Your task to perform on an android device: What's the weather today? Image 0: 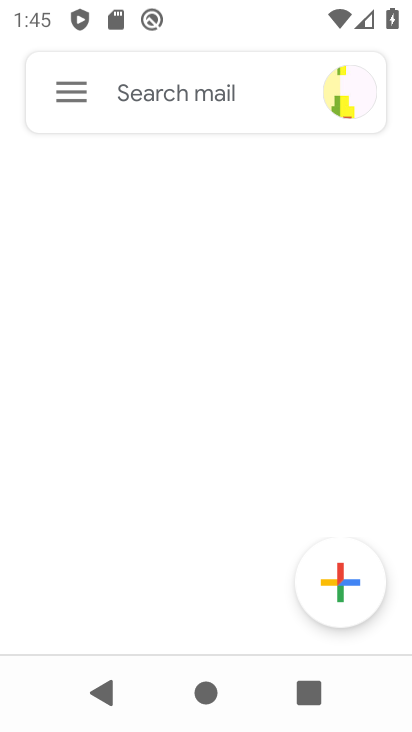
Step 0: press back button
Your task to perform on an android device: What's the weather today? Image 1: 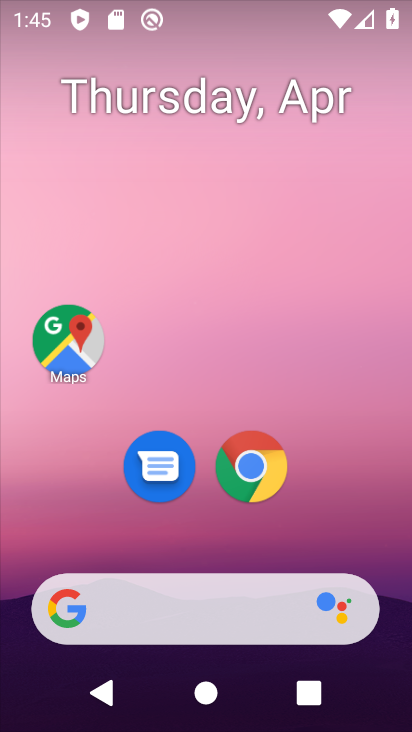
Step 1: drag from (334, 514) to (324, 68)
Your task to perform on an android device: What's the weather today? Image 2: 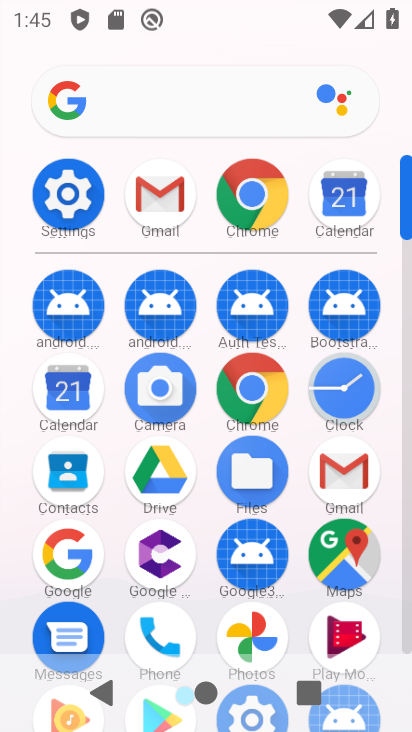
Step 2: drag from (10, 502) to (12, 264)
Your task to perform on an android device: What's the weather today? Image 3: 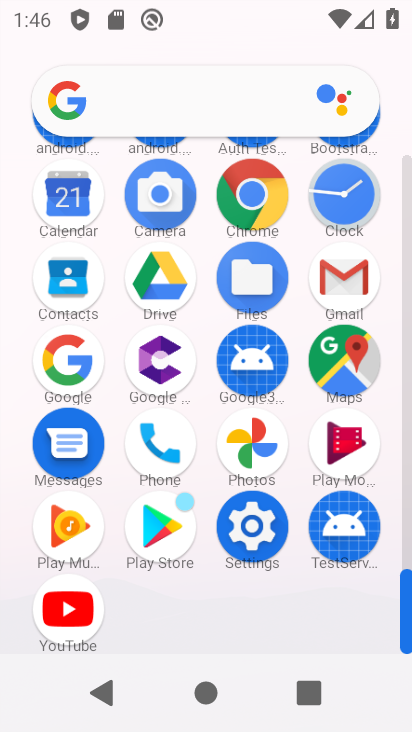
Step 3: drag from (2, 489) to (15, 294)
Your task to perform on an android device: What's the weather today? Image 4: 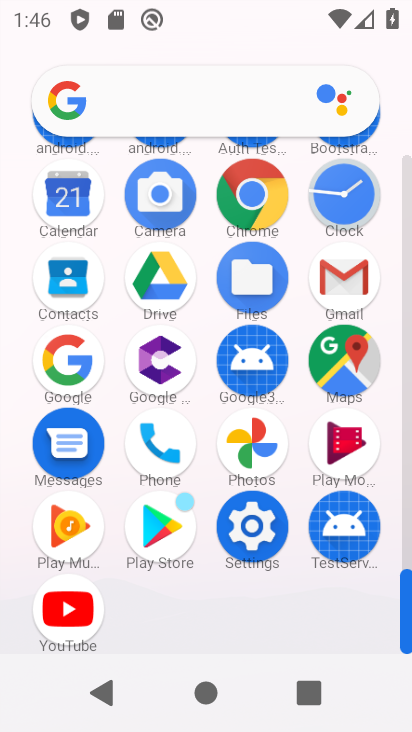
Step 4: drag from (13, 234) to (10, 416)
Your task to perform on an android device: What's the weather today? Image 5: 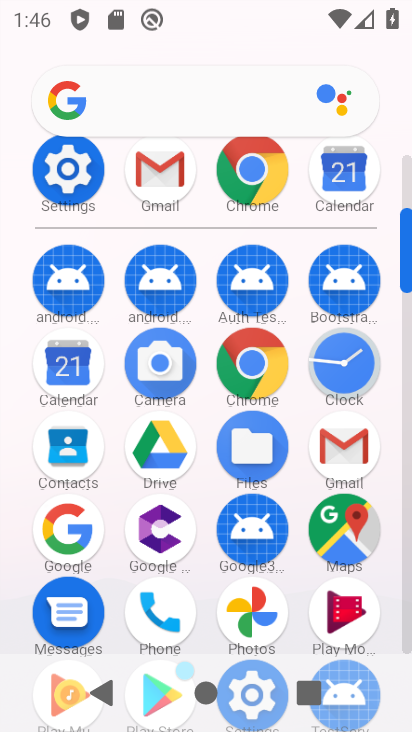
Step 5: click (173, 100)
Your task to perform on an android device: What's the weather today? Image 6: 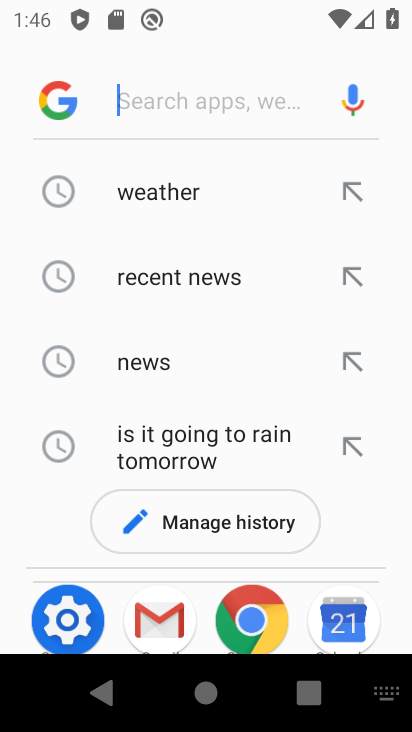
Step 6: click (171, 192)
Your task to perform on an android device: What's the weather today? Image 7: 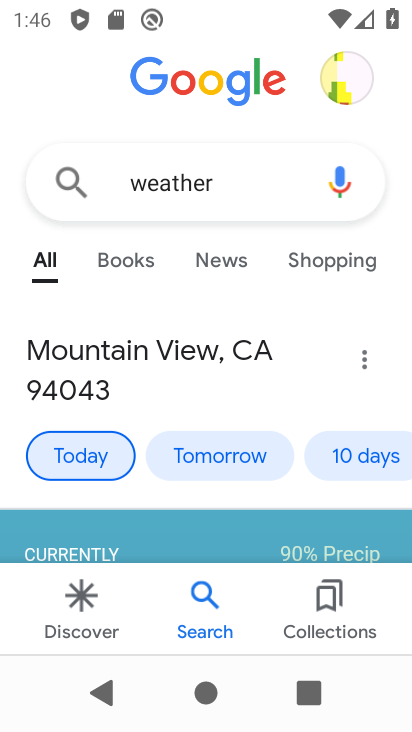
Step 7: task complete